Your task to perform on an android device: What's the weather? Image 0: 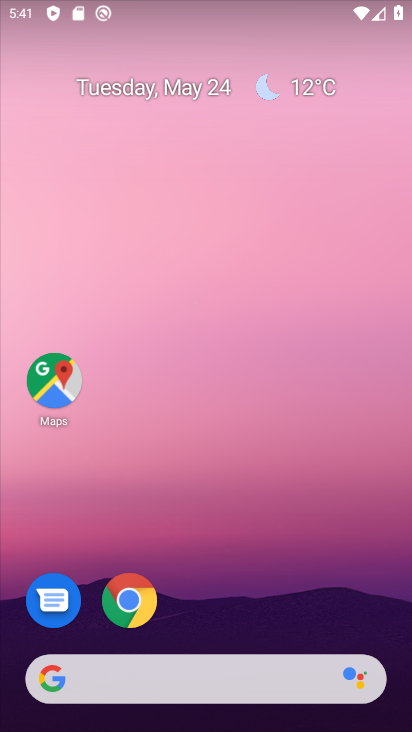
Step 0: drag from (319, 652) to (319, 25)
Your task to perform on an android device: What's the weather? Image 1: 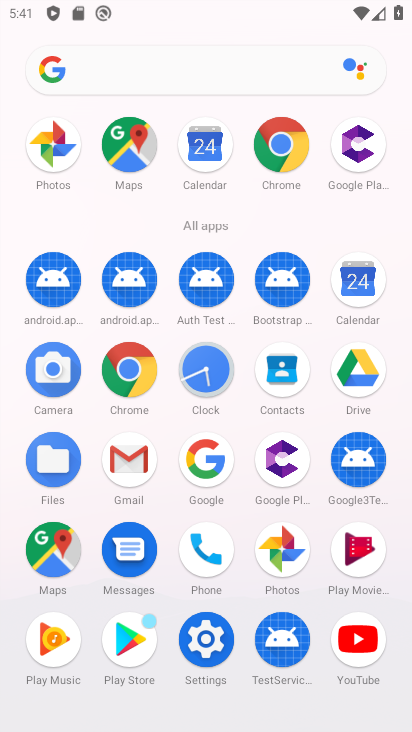
Step 1: press home button
Your task to perform on an android device: What's the weather? Image 2: 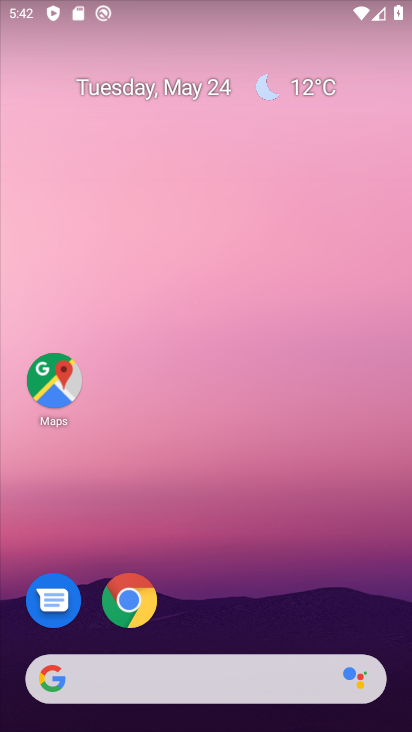
Step 2: drag from (33, 279) to (411, 277)
Your task to perform on an android device: What's the weather? Image 3: 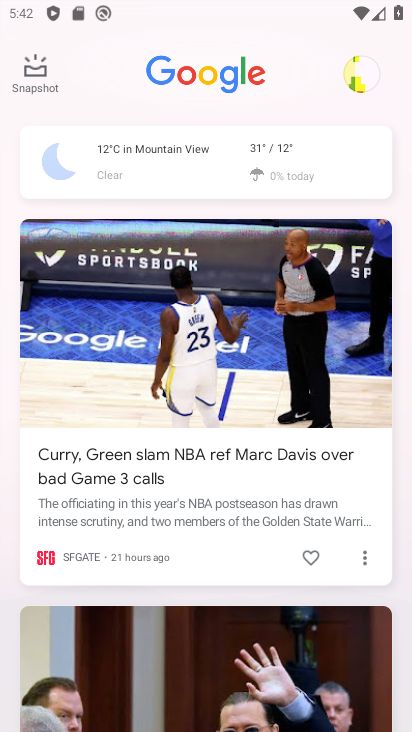
Step 3: click (159, 181)
Your task to perform on an android device: What's the weather? Image 4: 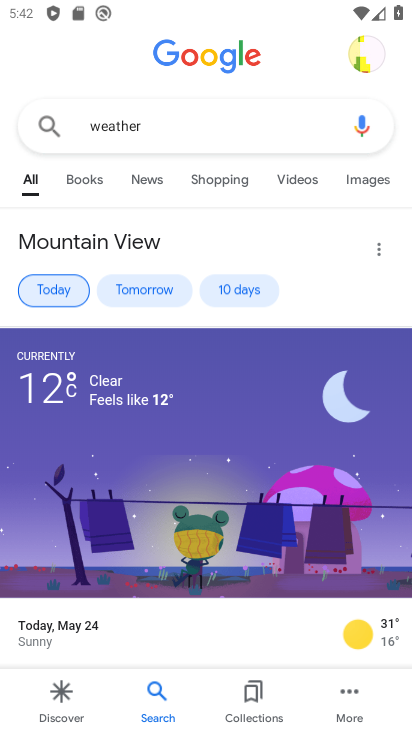
Step 4: task complete